Your task to perform on an android device: turn on priority inbox in the gmail app Image 0: 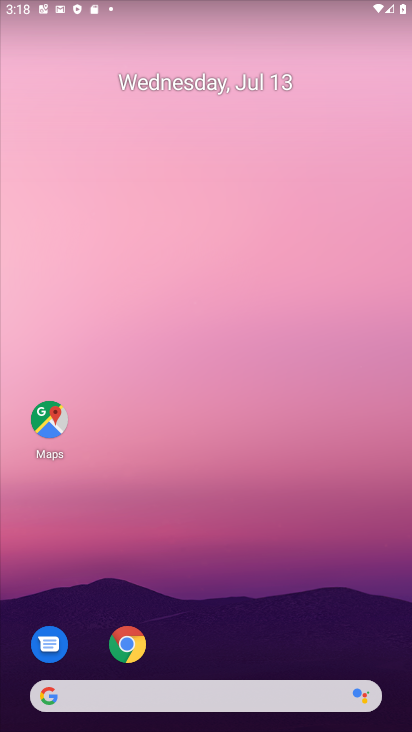
Step 0: drag from (16, 701) to (307, 48)
Your task to perform on an android device: turn on priority inbox in the gmail app Image 1: 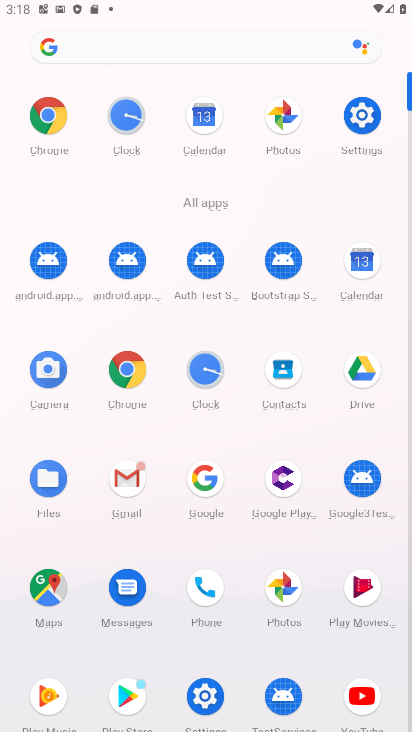
Step 1: click (121, 471)
Your task to perform on an android device: turn on priority inbox in the gmail app Image 2: 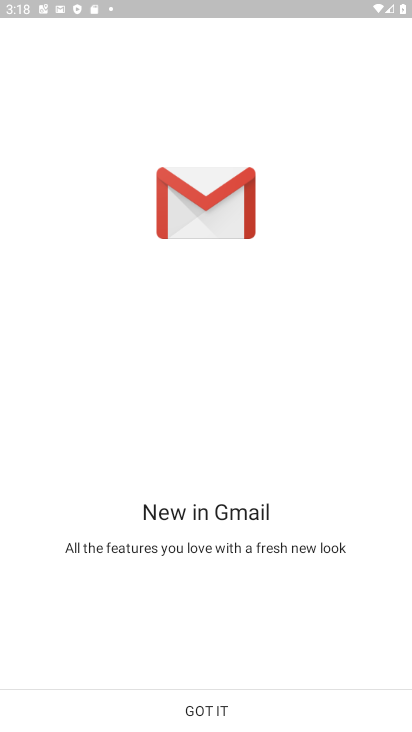
Step 2: click (206, 710)
Your task to perform on an android device: turn on priority inbox in the gmail app Image 3: 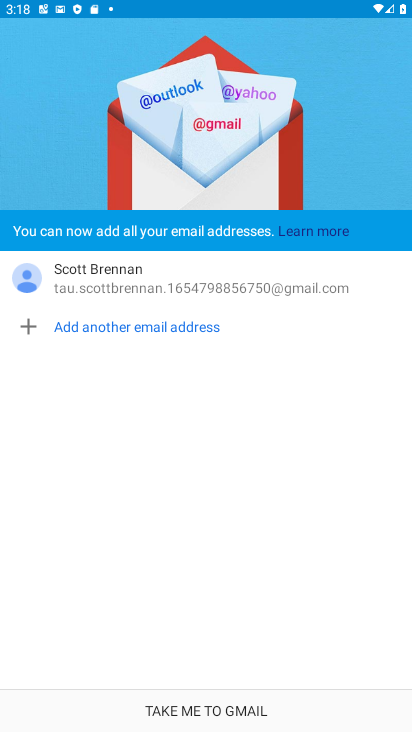
Step 3: click (198, 713)
Your task to perform on an android device: turn on priority inbox in the gmail app Image 4: 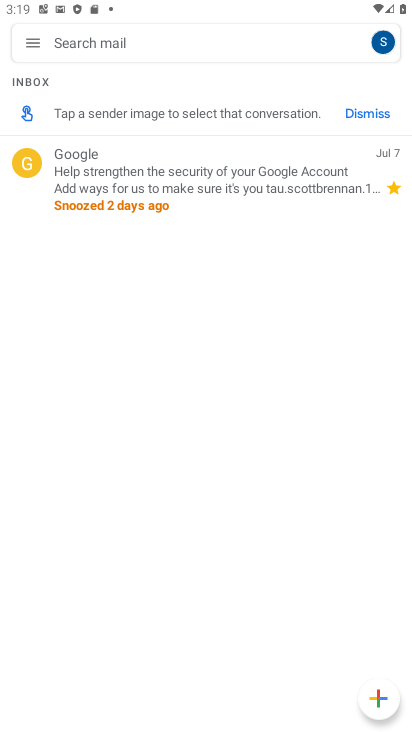
Step 4: click (41, 42)
Your task to perform on an android device: turn on priority inbox in the gmail app Image 5: 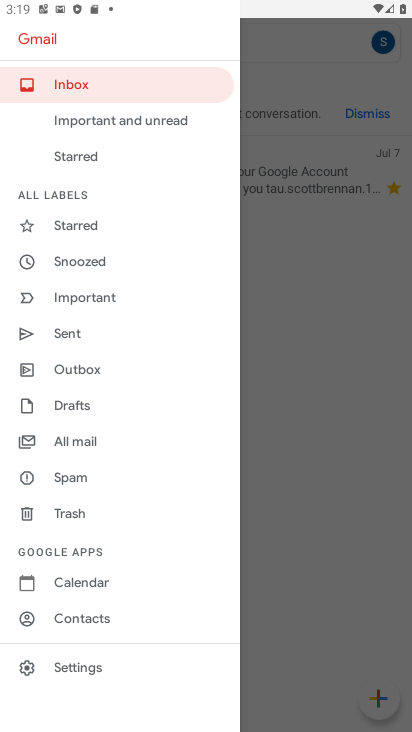
Step 5: click (65, 669)
Your task to perform on an android device: turn on priority inbox in the gmail app Image 6: 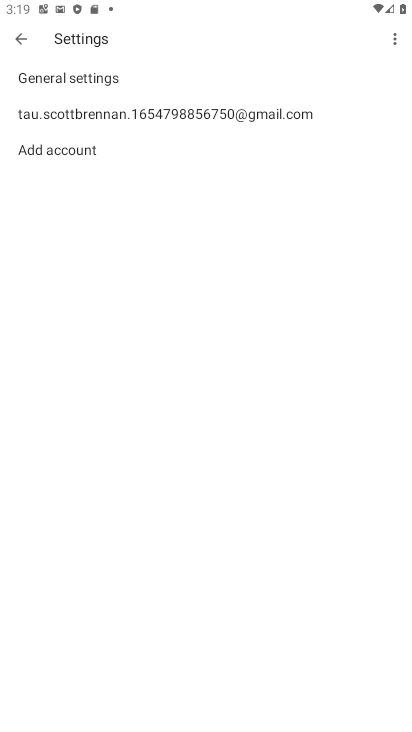
Step 6: click (73, 71)
Your task to perform on an android device: turn on priority inbox in the gmail app Image 7: 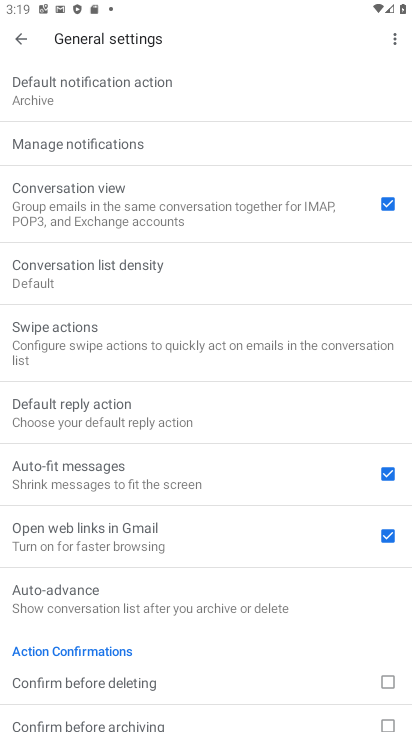
Step 7: click (14, 37)
Your task to perform on an android device: turn on priority inbox in the gmail app Image 8: 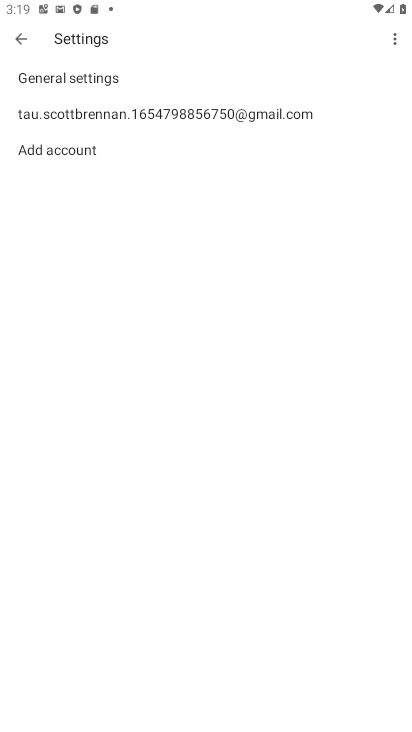
Step 8: click (63, 108)
Your task to perform on an android device: turn on priority inbox in the gmail app Image 9: 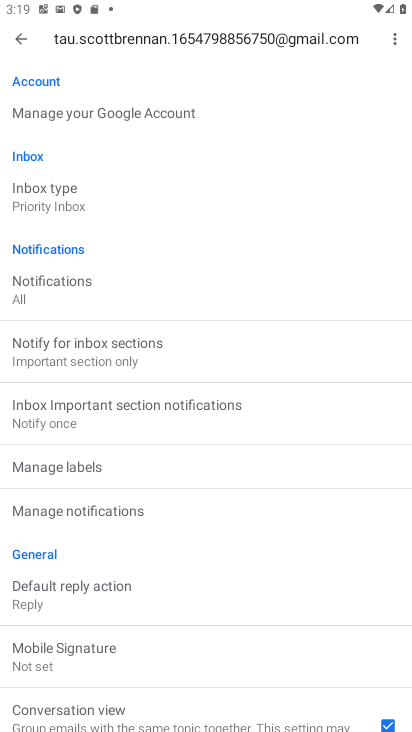
Step 9: task complete